Your task to perform on an android device: set the timer Image 0: 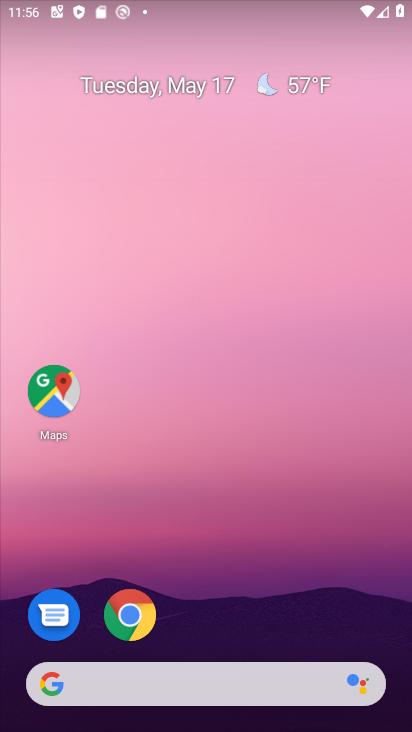
Step 0: drag from (380, 607) to (283, 76)
Your task to perform on an android device: set the timer Image 1: 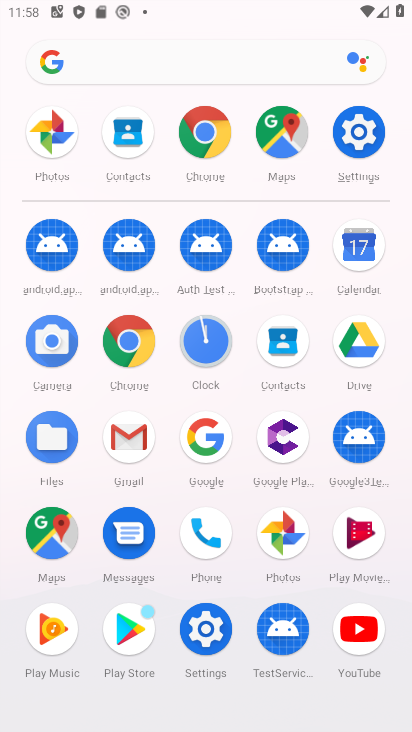
Step 1: click (206, 358)
Your task to perform on an android device: set the timer Image 2: 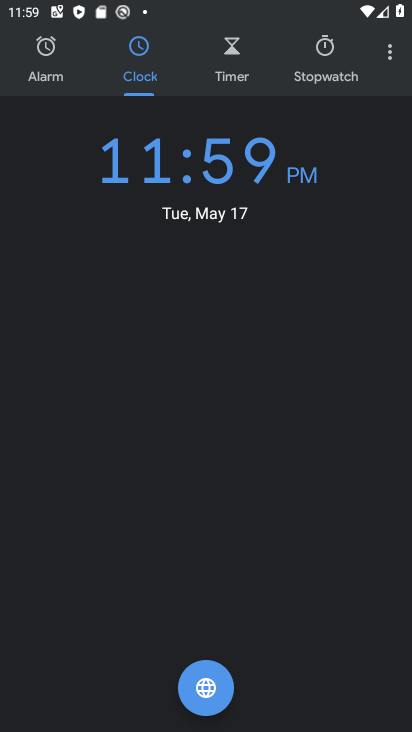
Step 2: click (386, 47)
Your task to perform on an android device: set the timer Image 3: 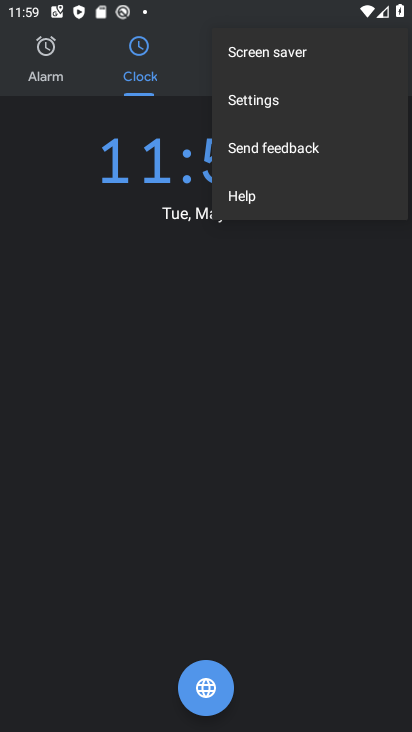
Step 3: click (307, 113)
Your task to perform on an android device: set the timer Image 4: 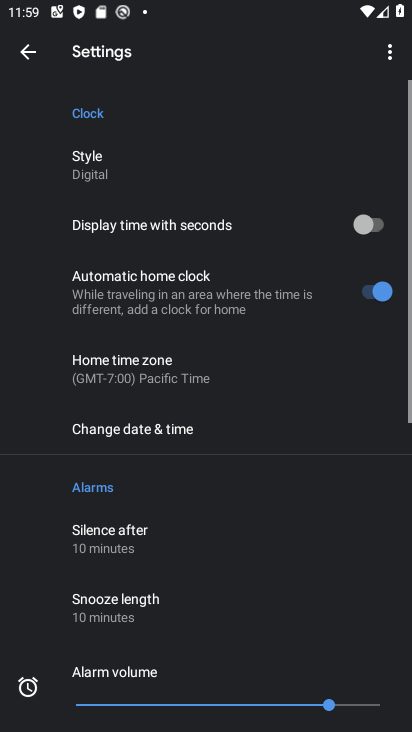
Step 4: click (216, 355)
Your task to perform on an android device: set the timer Image 5: 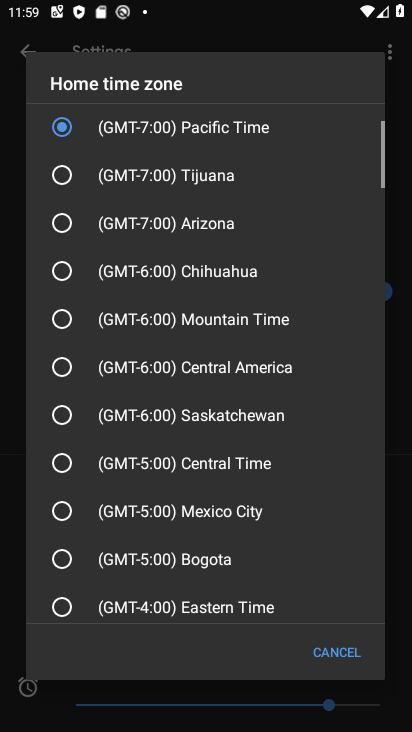
Step 5: click (152, 322)
Your task to perform on an android device: set the timer Image 6: 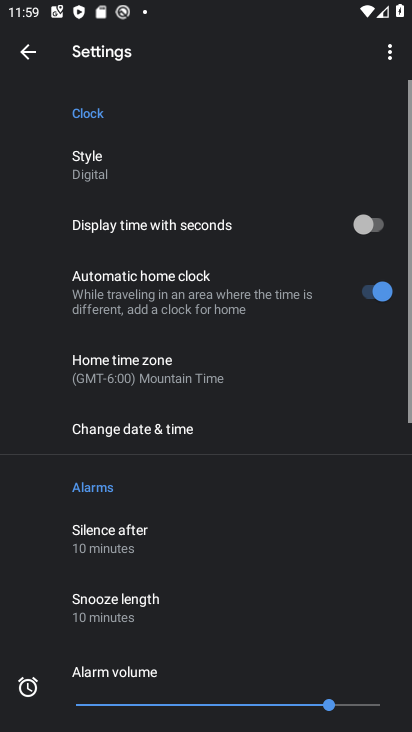
Step 6: task complete